Your task to perform on an android device: Open Youtube and go to the subscriptions tab Image 0: 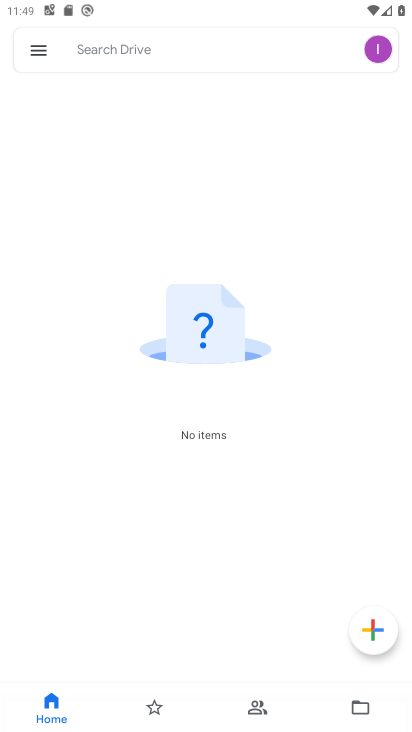
Step 0: press home button
Your task to perform on an android device: Open Youtube and go to the subscriptions tab Image 1: 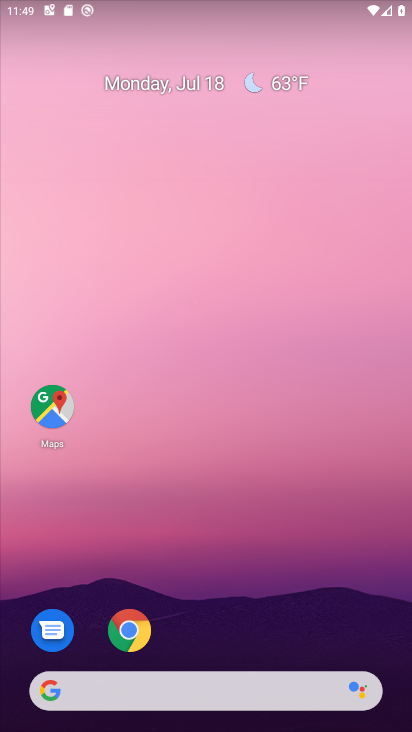
Step 1: drag from (264, 648) to (270, 125)
Your task to perform on an android device: Open Youtube and go to the subscriptions tab Image 2: 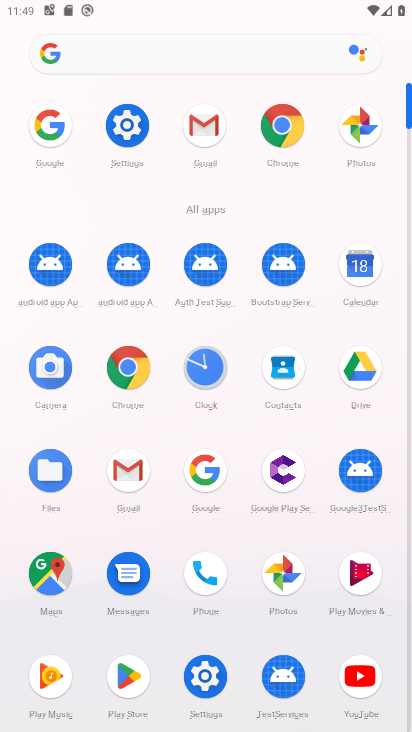
Step 2: click (358, 674)
Your task to perform on an android device: Open Youtube and go to the subscriptions tab Image 3: 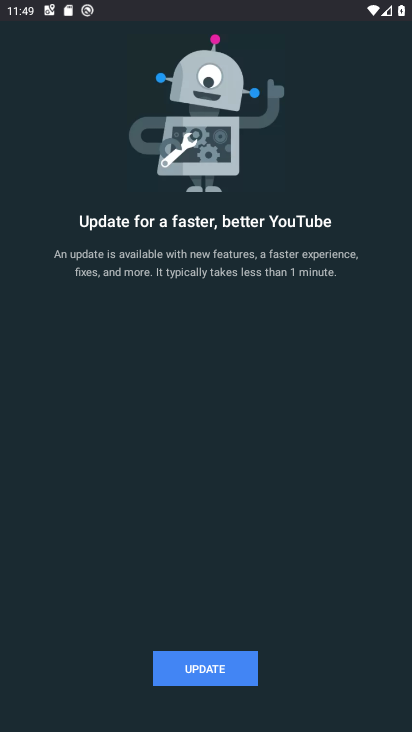
Step 3: click (207, 664)
Your task to perform on an android device: Open Youtube and go to the subscriptions tab Image 4: 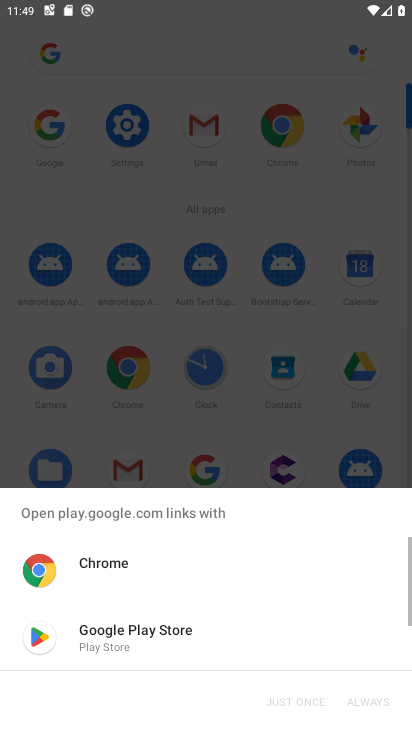
Step 4: click (140, 623)
Your task to perform on an android device: Open Youtube and go to the subscriptions tab Image 5: 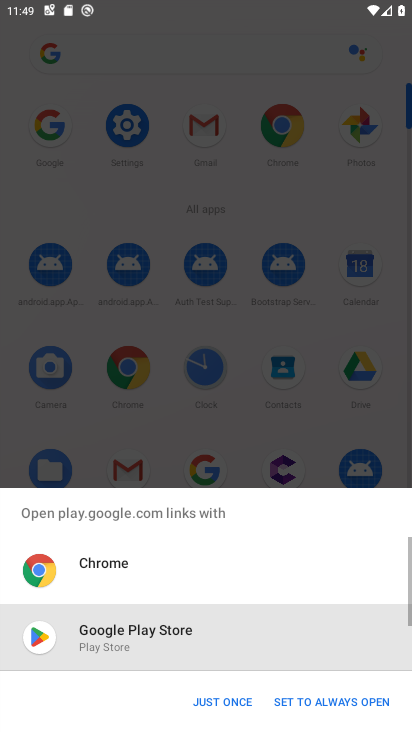
Step 5: click (220, 695)
Your task to perform on an android device: Open Youtube and go to the subscriptions tab Image 6: 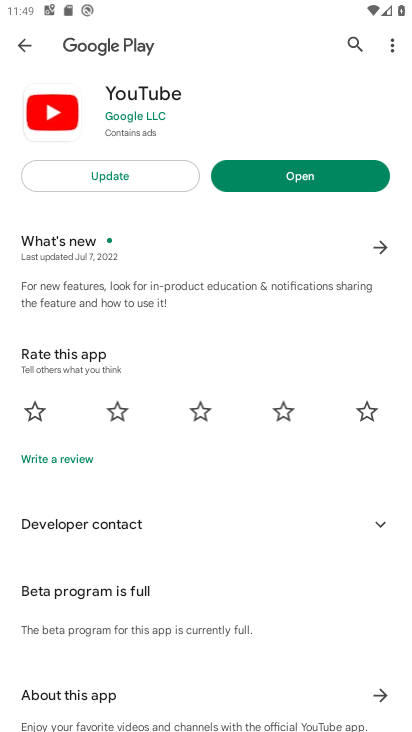
Step 6: click (151, 172)
Your task to perform on an android device: Open Youtube and go to the subscriptions tab Image 7: 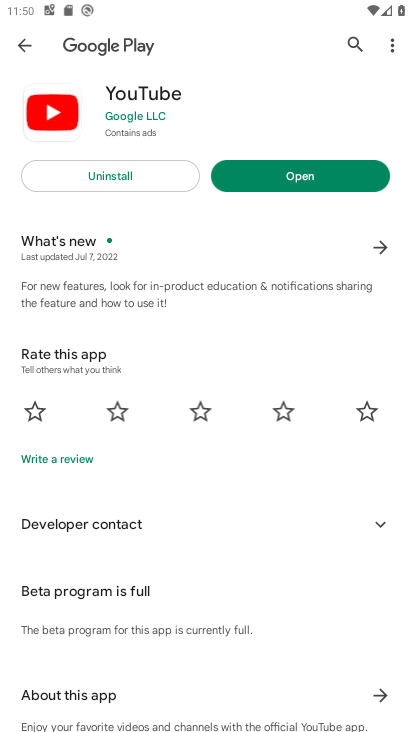
Step 7: click (318, 176)
Your task to perform on an android device: Open Youtube and go to the subscriptions tab Image 8: 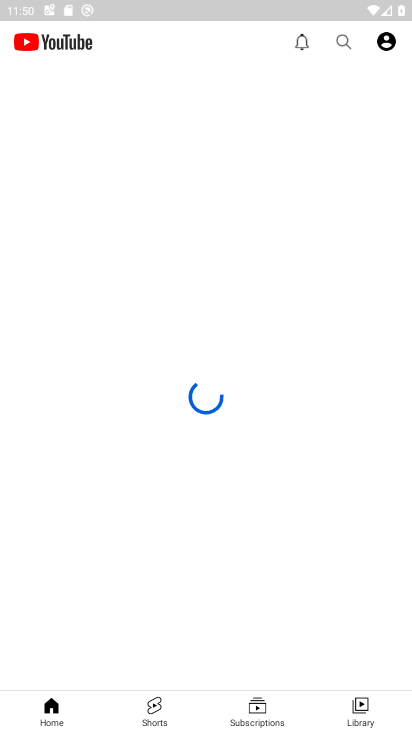
Step 8: click (263, 708)
Your task to perform on an android device: Open Youtube and go to the subscriptions tab Image 9: 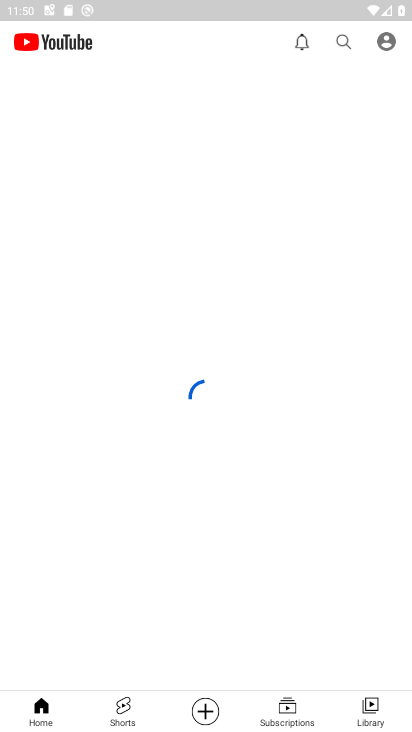
Step 9: click (283, 713)
Your task to perform on an android device: Open Youtube and go to the subscriptions tab Image 10: 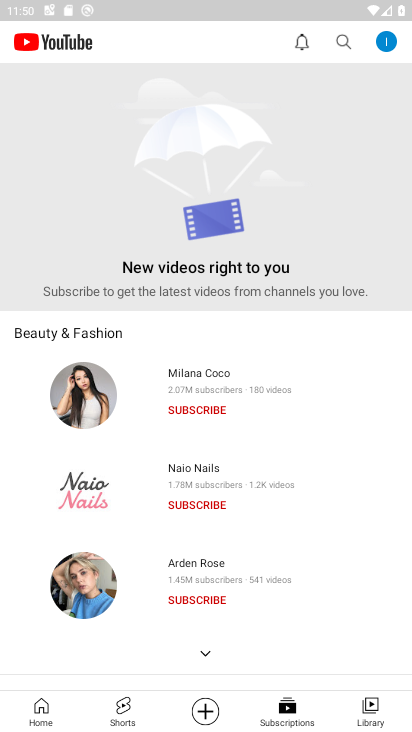
Step 10: task complete